Your task to perform on an android device: Clear the cart on costco. Search for asus rog on costco, select the first entry, and add it to the cart. Image 0: 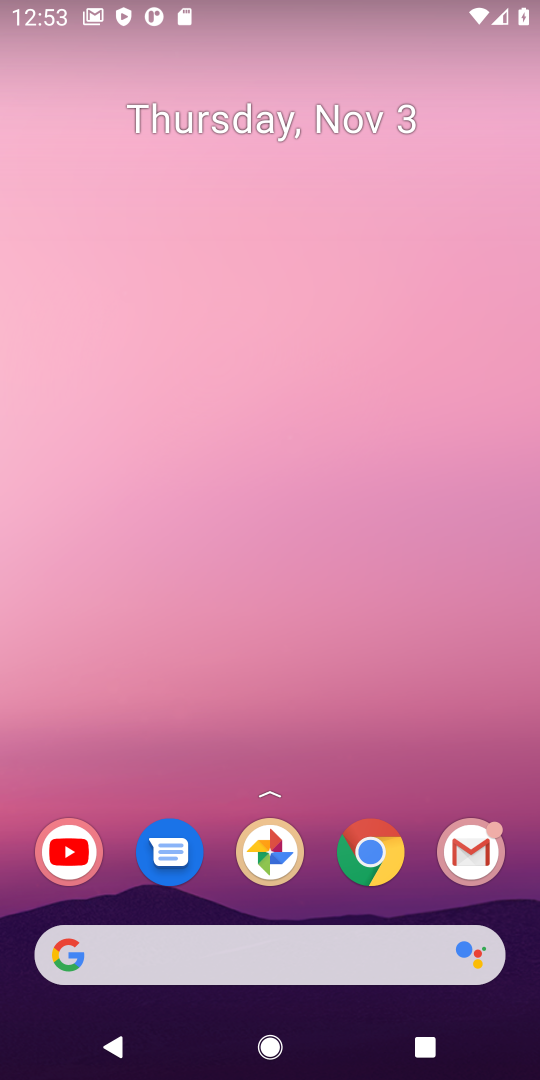
Step 0: click (368, 865)
Your task to perform on an android device: Clear the cart on costco. Search for asus rog on costco, select the first entry, and add it to the cart. Image 1: 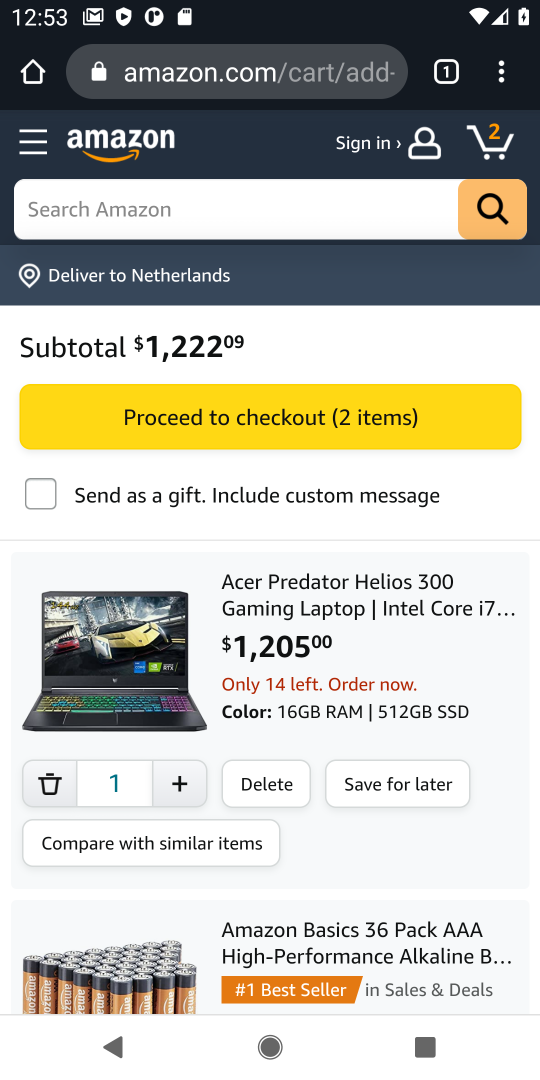
Step 1: click (220, 75)
Your task to perform on an android device: Clear the cart on costco. Search for asus rog on costco, select the first entry, and add it to the cart. Image 2: 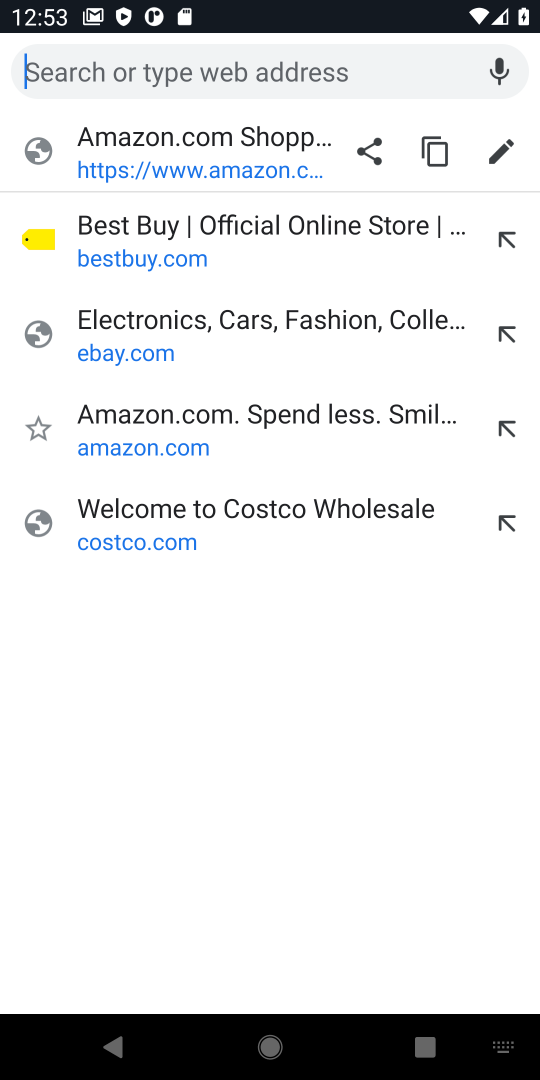
Step 2: type "costco.com"
Your task to perform on an android device: Clear the cart on costco. Search for asus rog on costco, select the first entry, and add it to the cart. Image 3: 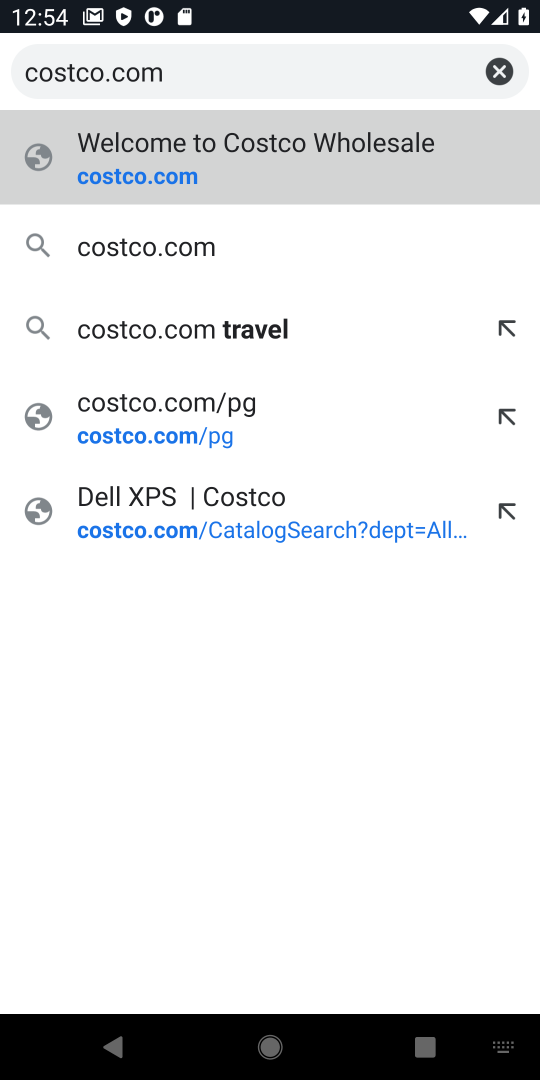
Step 3: click (147, 186)
Your task to perform on an android device: Clear the cart on costco. Search for asus rog on costco, select the first entry, and add it to the cart. Image 4: 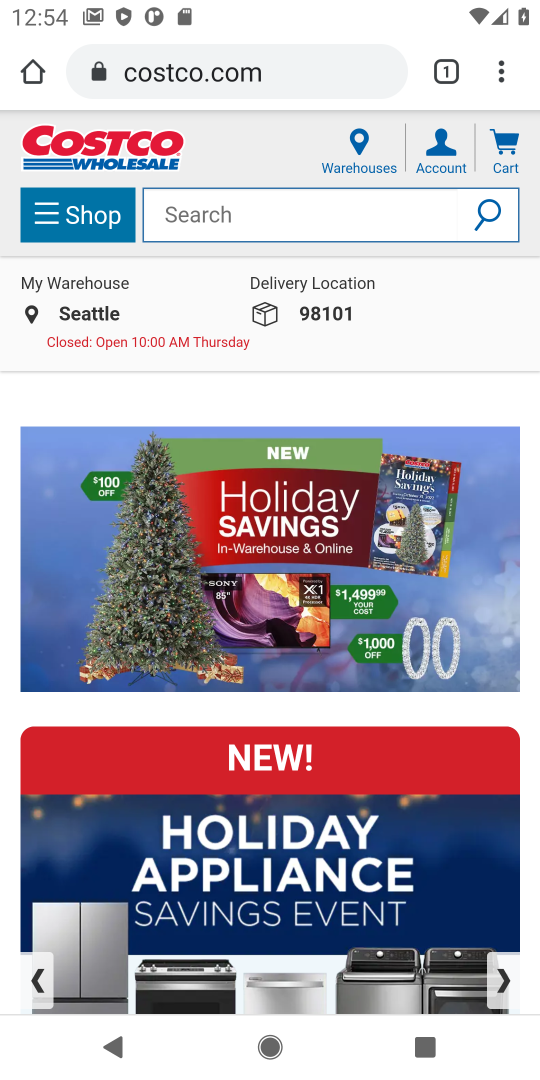
Step 4: click (503, 162)
Your task to perform on an android device: Clear the cart on costco. Search for asus rog on costco, select the first entry, and add it to the cart. Image 5: 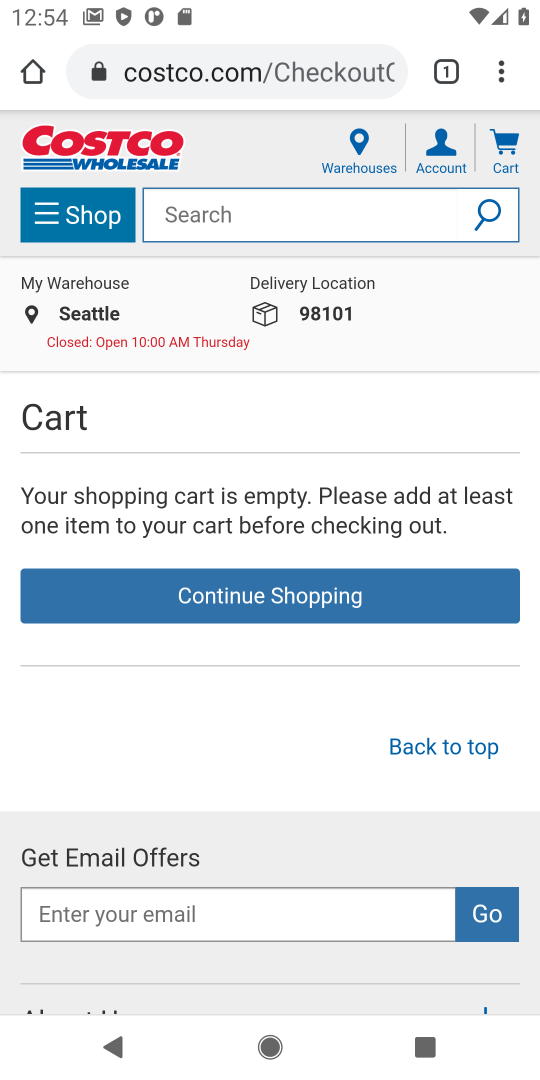
Step 5: click (213, 212)
Your task to perform on an android device: Clear the cart on costco. Search for asus rog on costco, select the first entry, and add it to the cart. Image 6: 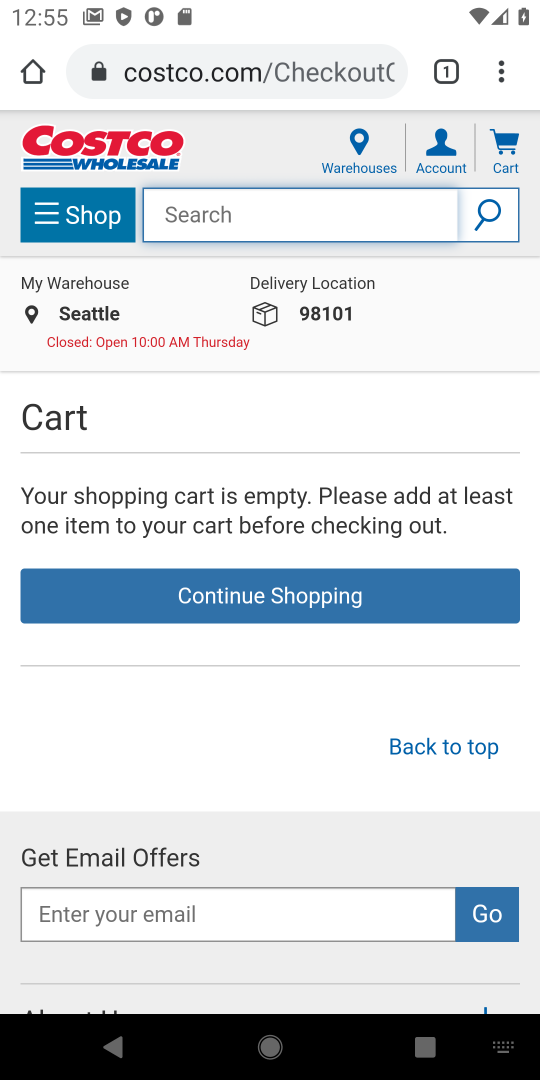
Step 6: type "asus rog"
Your task to perform on an android device: Clear the cart on costco. Search for asus rog on costco, select the first entry, and add it to the cart. Image 7: 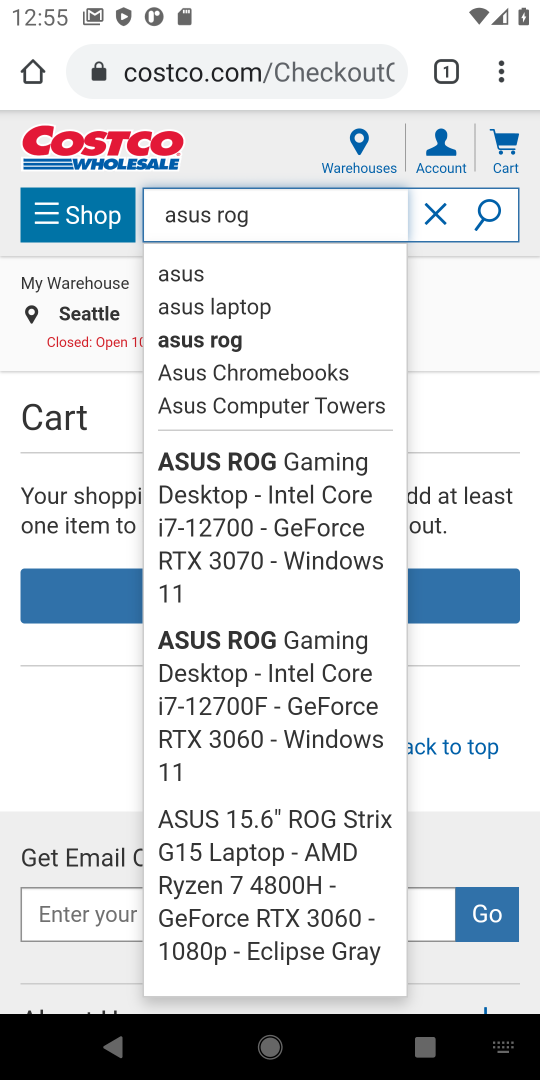
Step 7: click (209, 353)
Your task to perform on an android device: Clear the cart on costco. Search for asus rog on costco, select the first entry, and add it to the cart. Image 8: 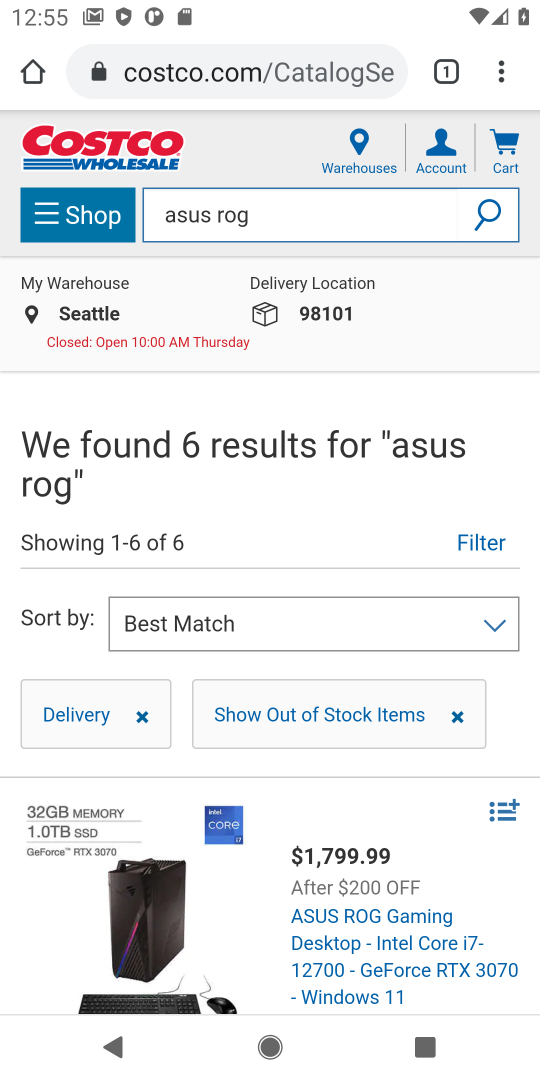
Step 8: drag from (333, 839) to (375, 494)
Your task to perform on an android device: Clear the cart on costco. Search for asus rog on costco, select the first entry, and add it to the cart. Image 9: 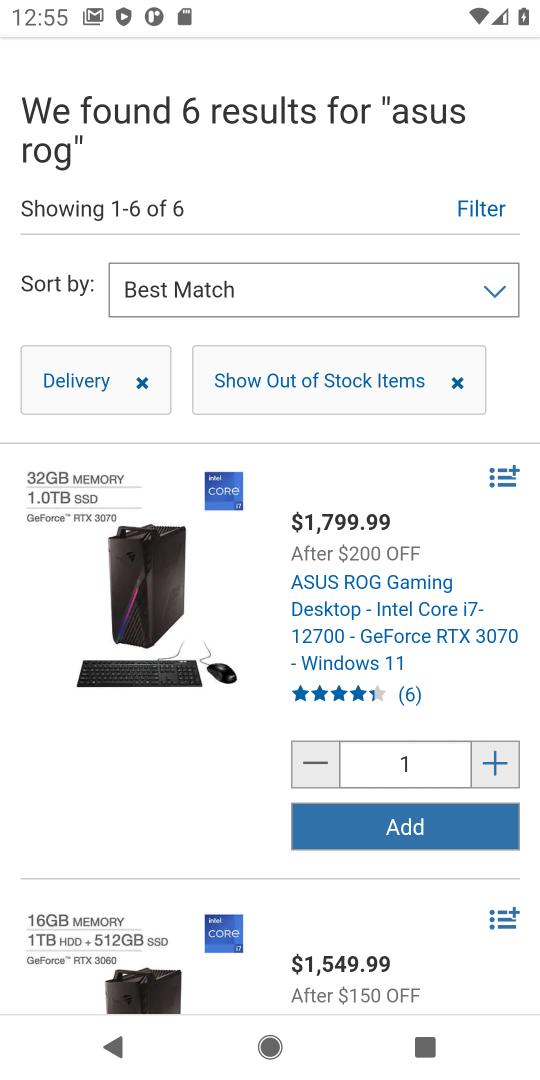
Step 9: click (400, 837)
Your task to perform on an android device: Clear the cart on costco. Search for asus rog on costco, select the first entry, and add it to the cart. Image 10: 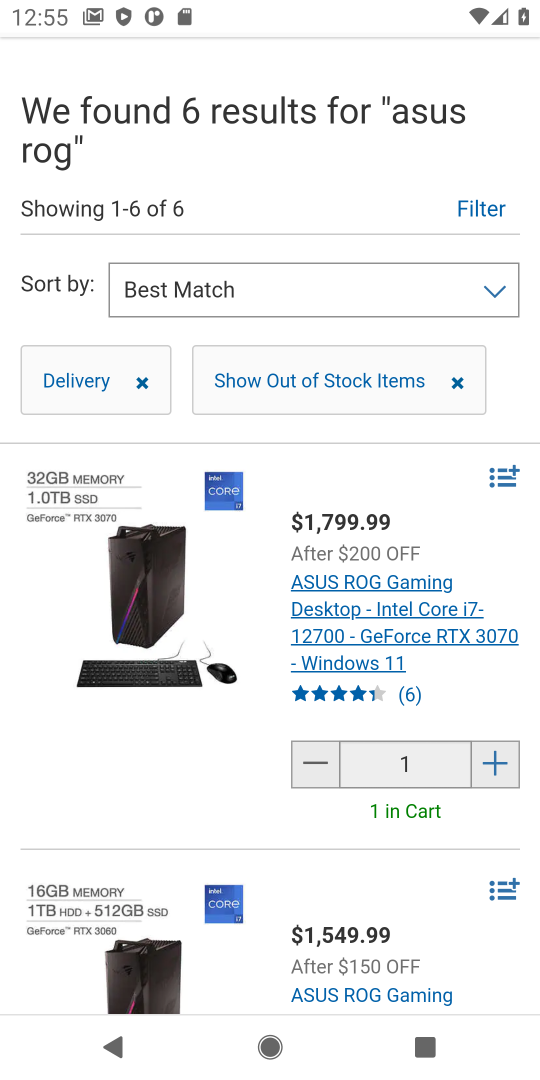
Step 10: task complete